Your task to perform on an android device: Is it going to rain tomorrow? Image 0: 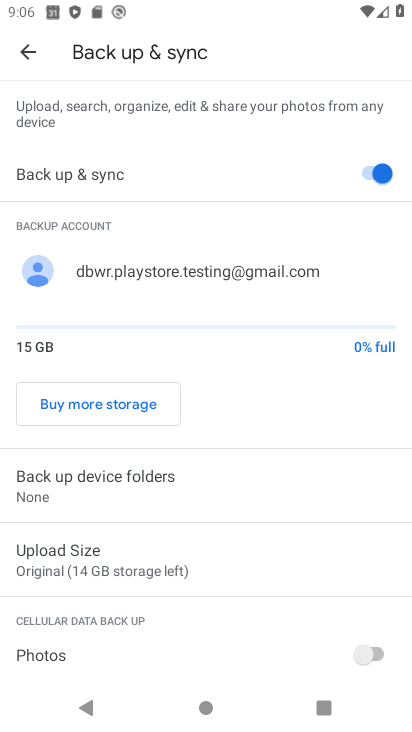
Step 0: press home button
Your task to perform on an android device: Is it going to rain tomorrow? Image 1: 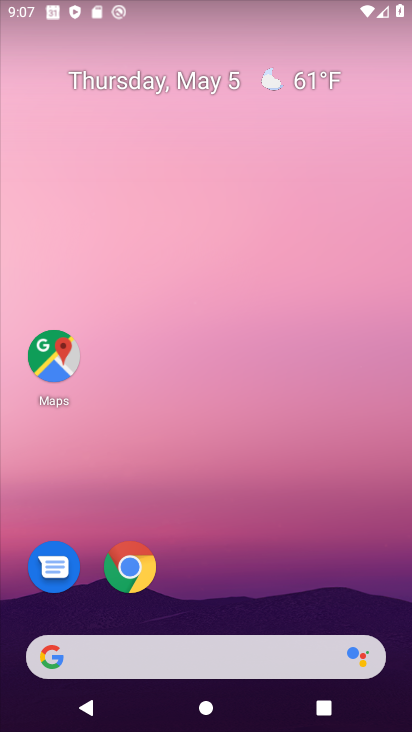
Step 1: click (268, 85)
Your task to perform on an android device: Is it going to rain tomorrow? Image 2: 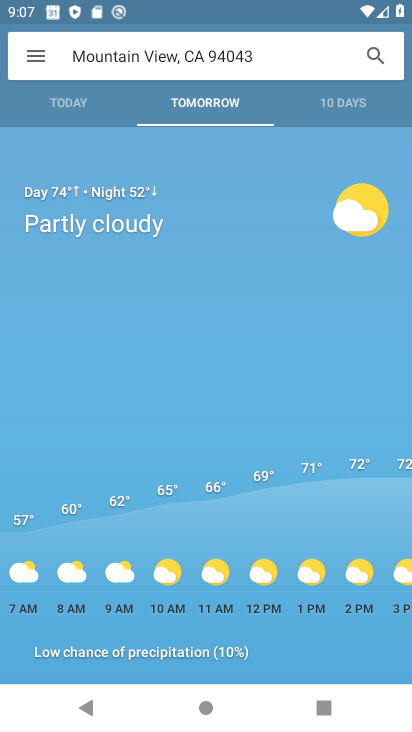
Step 2: task complete